Your task to perform on an android device: Is it going to rain today? Image 0: 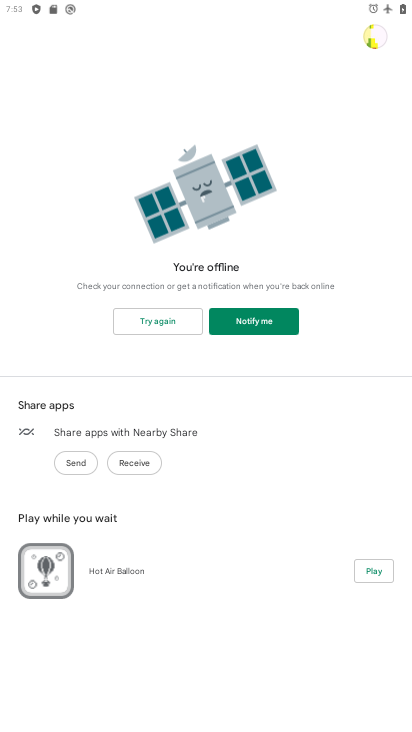
Step 0: drag from (212, 569) to (241, 255)
Your task to perform on an android device: Is it going to rain today? Image 1: 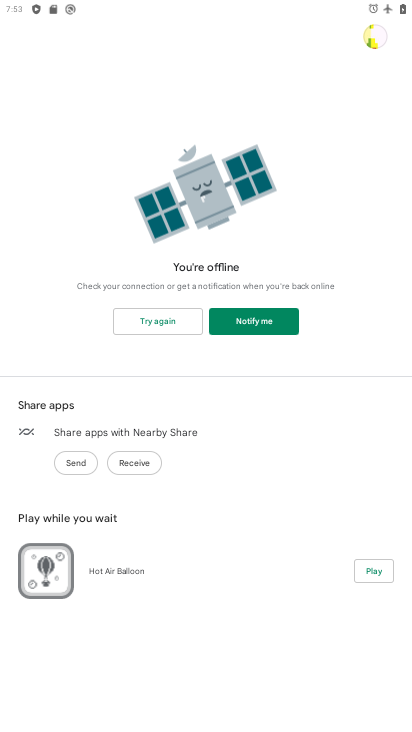
Step 1: click (158, 316)
Your task to perform on an android device: Is it going to rain today? Image 2: 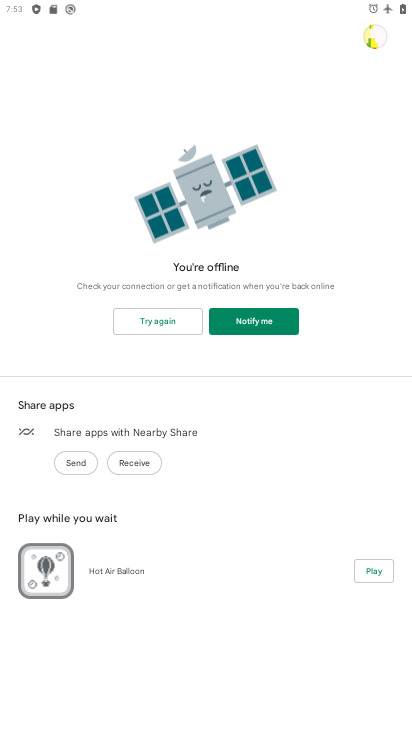
Step 2: drag from (370, 4) to (398, 594)
Your task to perform on an android device: Is it going to rain today? Image 3: 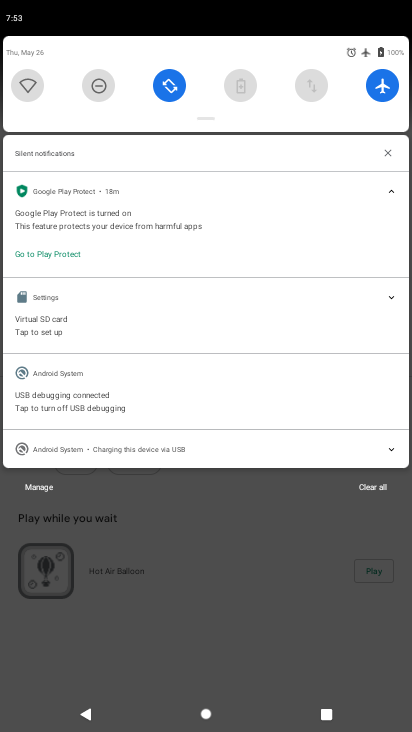
Step 3: click (373, 86)
Your task to perform on an android device: Is it going to rain today? Image 4: 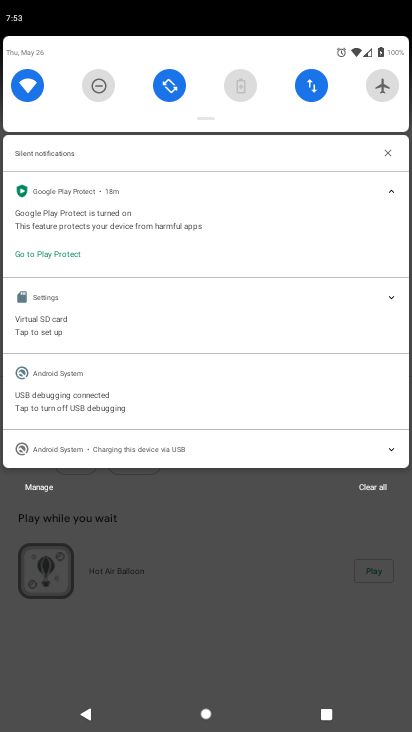
Step 4: press home button
Your task to perform on an android device: Is it going to rain today? Image 5: 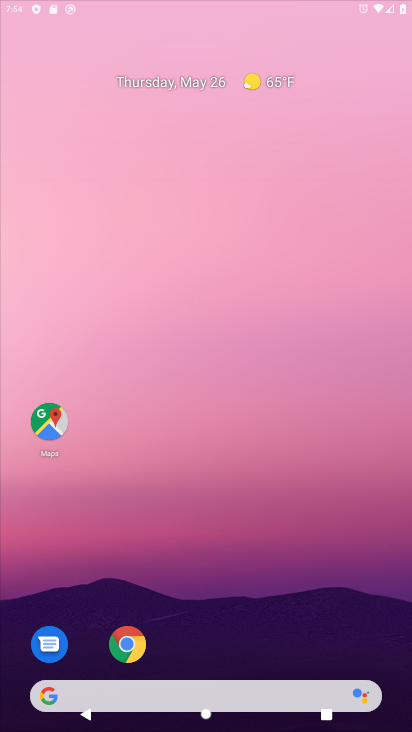
Step 5: drag from (181, 619) to (309, 8)
Your task to perform on an android device: Is it going to rain today? Image 6: 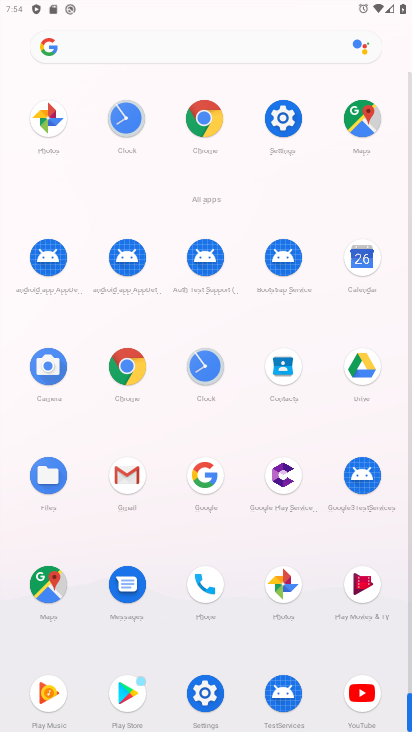
Step 6: click (148, 44)
Your task to perform on an android device: Is it going to rain today? Image 7: 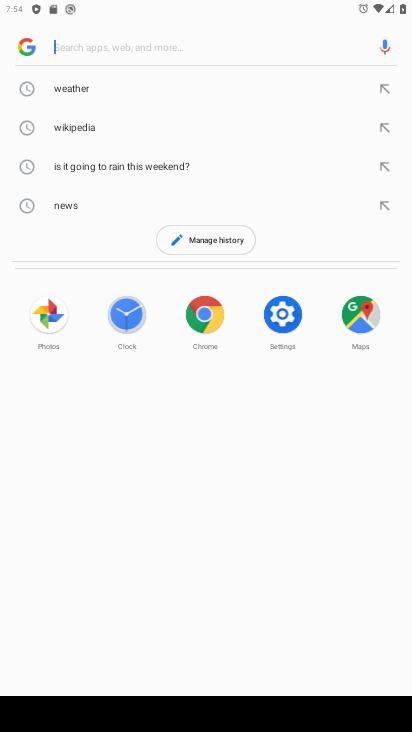
Step 7: type "rain today"
Your task to perform on an android device: Is it going to rain today? Image 8: 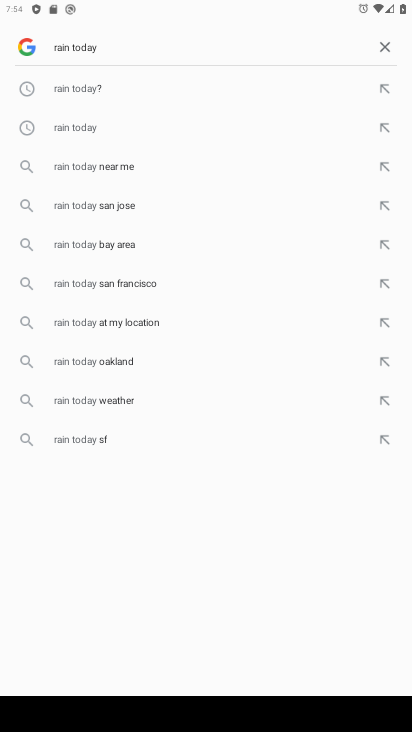
Step 8: click (95, 97)
Your task to perform on an android device: Is it going to rain today? Image 9: 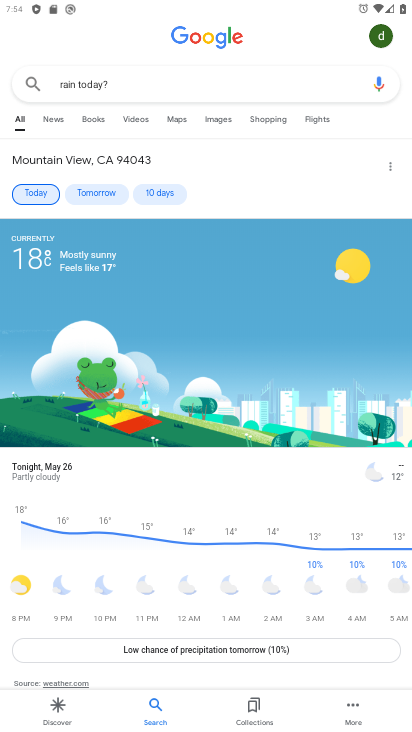
Step 9: task complete